Your task to perform on an android device: turn on showing notifications on the lock screen Image 0: 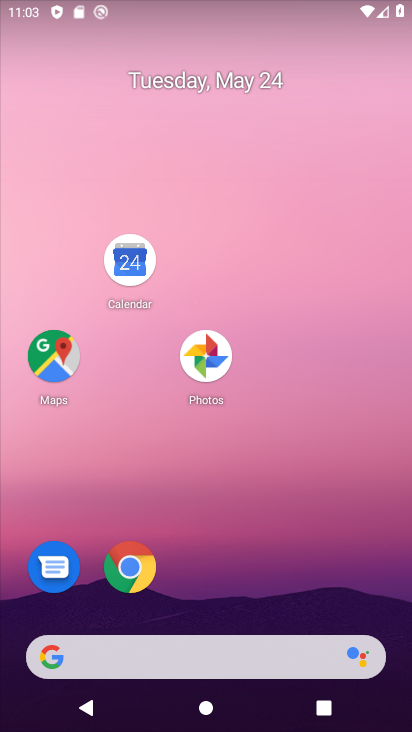
Step 0: drag from (275, 479) to (340, 85)
Your task to perform on an android device: turn on showing notifications on the lock screen Image 1: 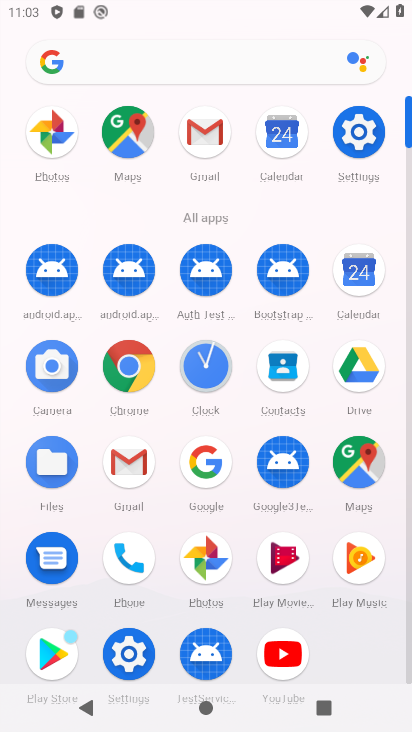
Step 1: drag from (358, 147) to (86, 253)
Your task to perform on an android device: turn on showing notifications on the lock screen Image 2: 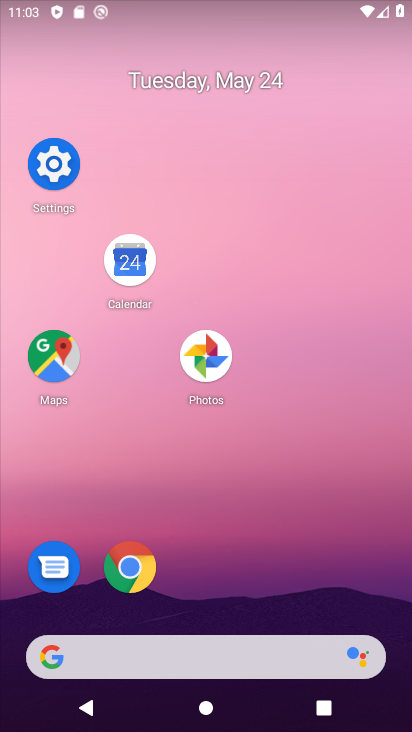
Step 2: click (61, 170)
Your task to perform on an android device: turn on showing notifications on the lock screen Image 3: 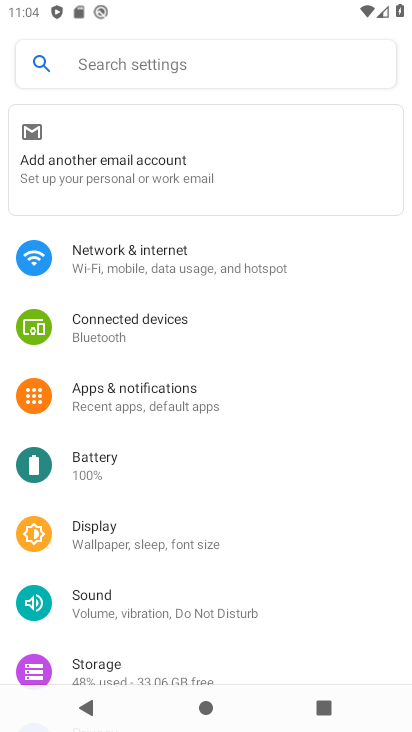
Step 3: click (161, 411)
Your task to perform on an android device: turn on showing notifications on the lock screen Image 4: 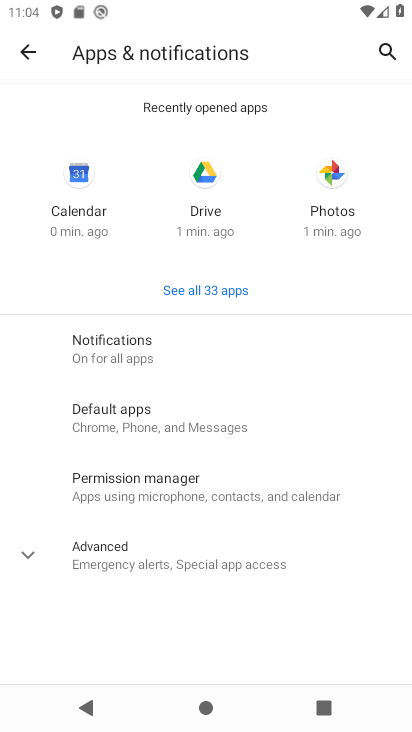
Step 4: click (141, 345)
Your task to perform on an android device: turn on showing notifications on the lock screen Image 5: 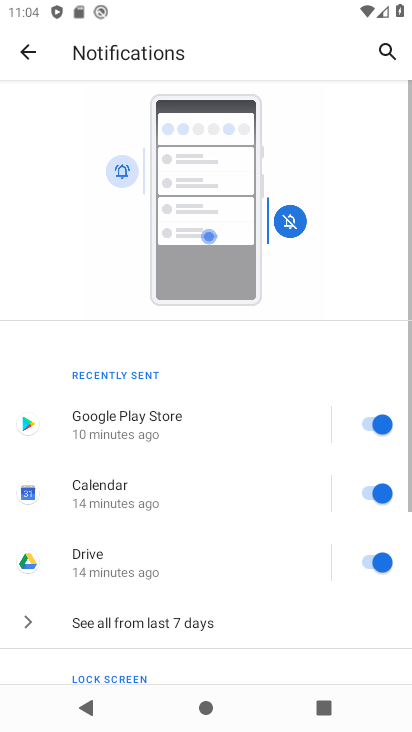
Step 5: drag from (110, 536) to (119, 126)
Your task to perform on an android device: turn on showing notifications on the lock screen Image 6: 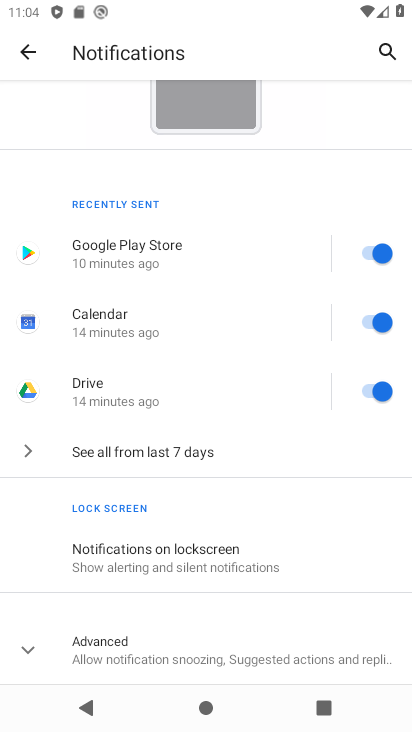
Step 6: click (176, 560)
Your task to perform on an android device: turn on showing notifications on the lock screen Image 7: 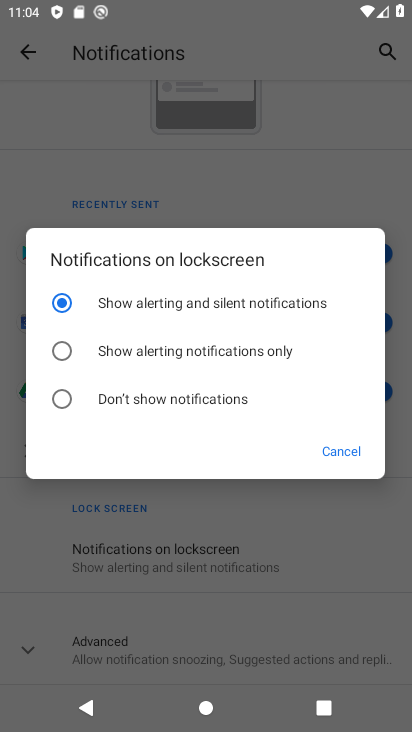
Step 7: task complete